Your task to perform on an android device: Empty the shopping cart on amazon.com. Search for "alienware aurora" on amazon.com, select the first entry, add it to the cart, then select checkout. Image 0: 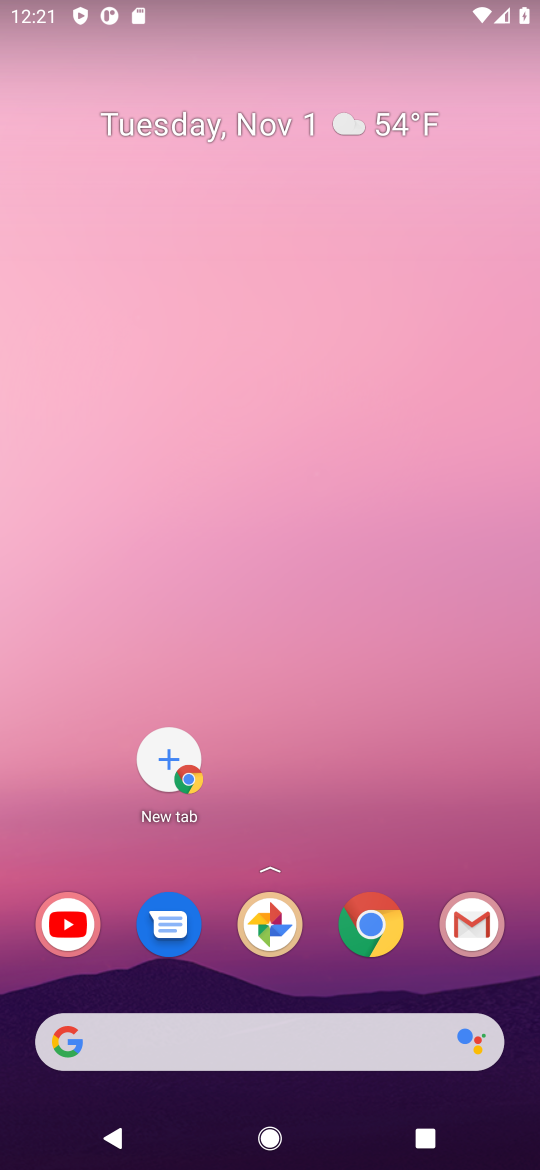
Step 0: click (363, 929)
Your task to perform on an android device: Empty the shopping cart on amazon.com. Search for "alienware aurora" on amazon.com, select the first entry, add it to the cart, then select checkout. Image 1: 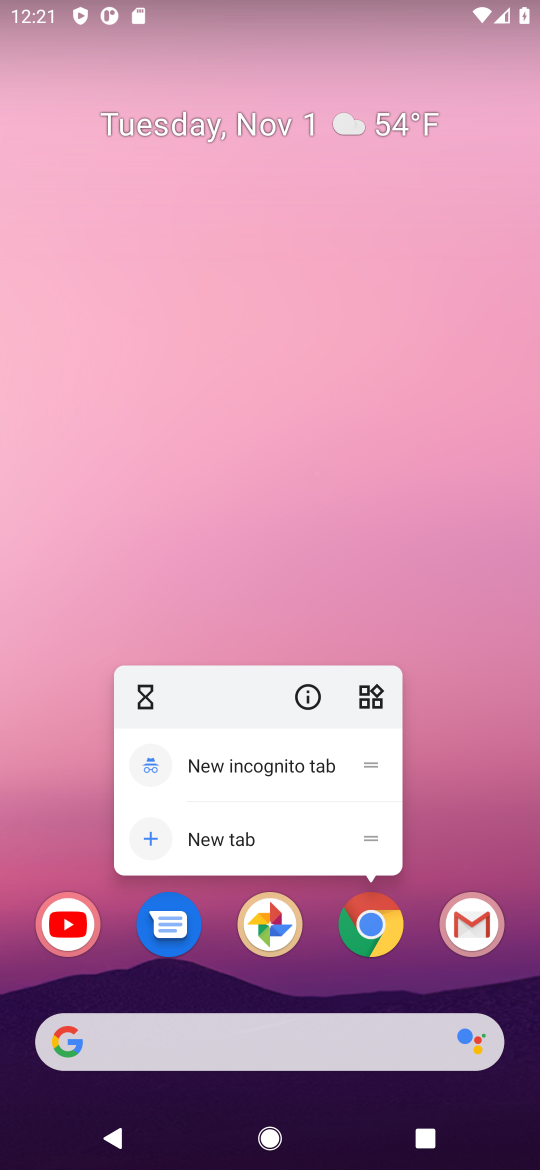
Step 1: click (361, 911)
Your task to perform on an android device: Empty the shopping cart on amazon.com. Search for "alienware aurora" on amazon.com, select the first entry, add it to the cart, then select checkout. Image 2: 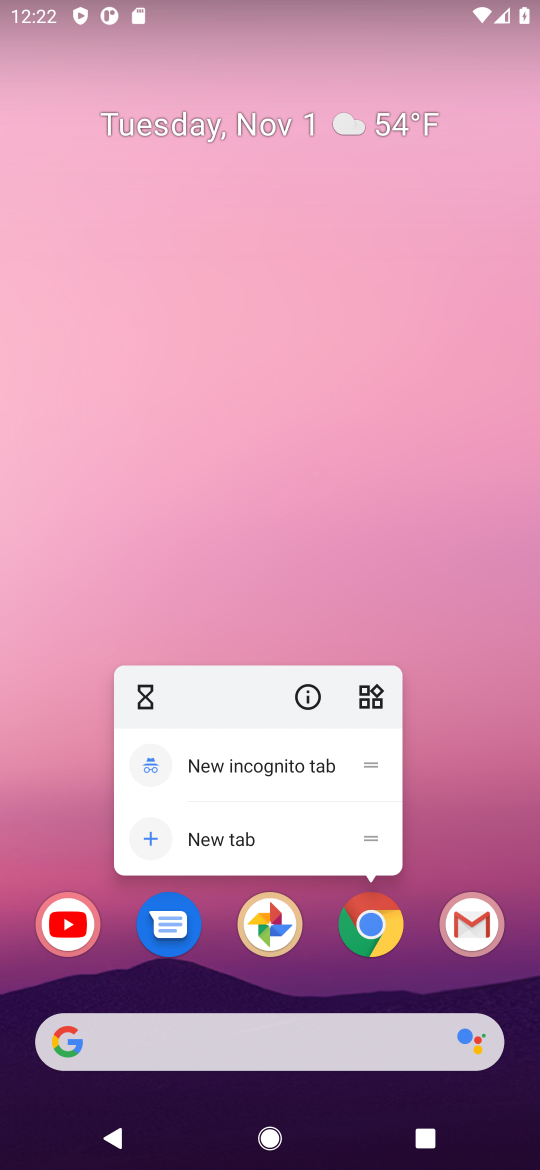
Step 2: click (373, 935)
Your task to perform on an android device: Empty the shopping cart on amazon.com. Search for "alienware aurora" on amazon.com, select the first entry, add it to the cart, then select checkout. Image 3: 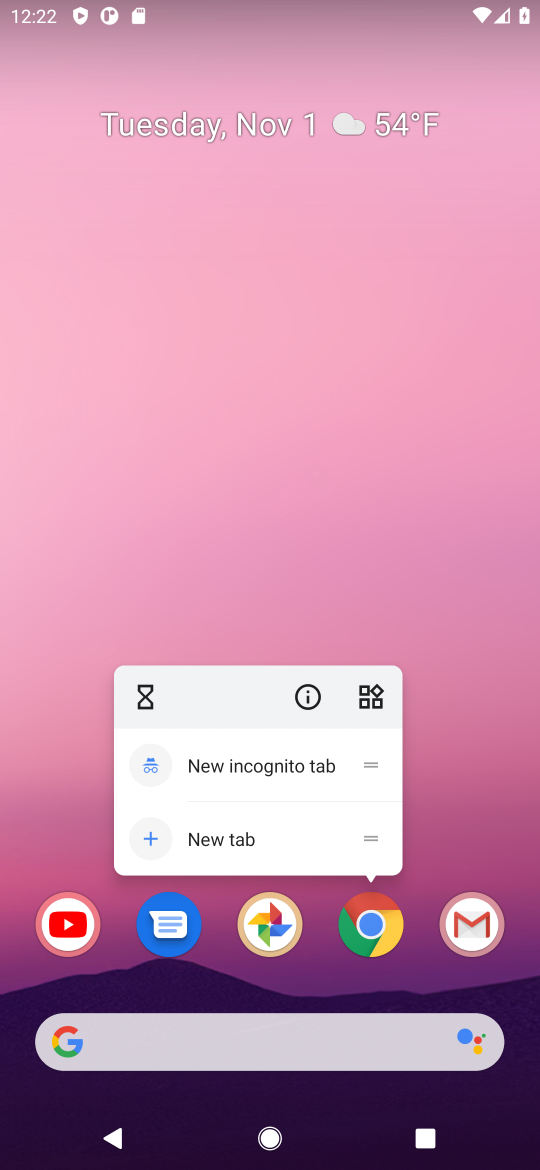
Step 3: click (370, 936)
Your task to perform on an android device: Empty the shopping cart on amazon.com. Search for "alienware aurora" on amazon.com, select the first entry, add it to the cart, then select checkout. Image 4: 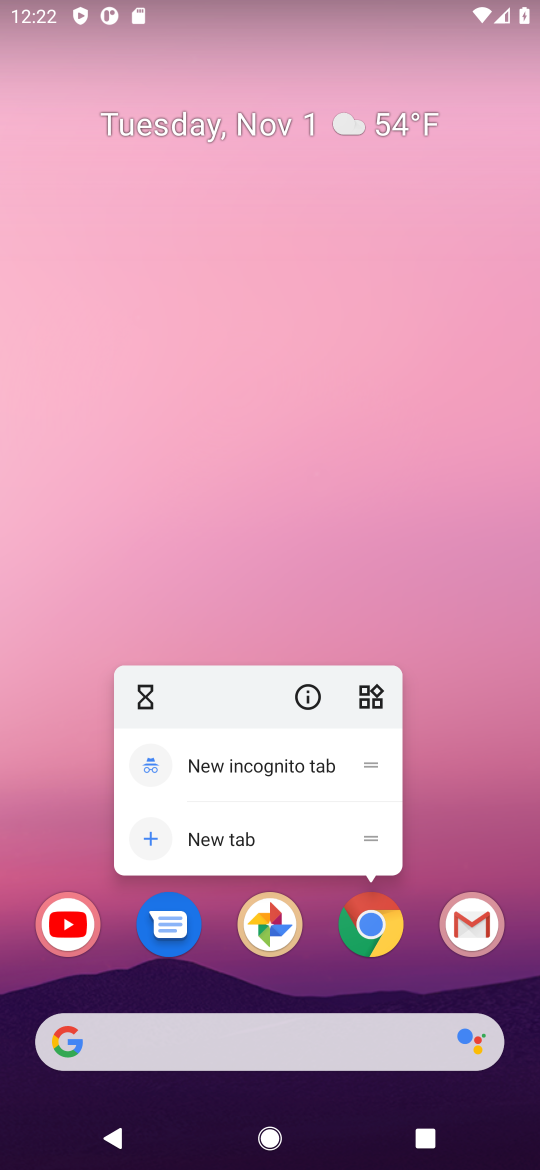
Step 4: click (386, 938)
Your task to perform on an android device: Empty the shopping cart on amazon.com. Search for "alienware aurora" on amazon.com, select the first entry, add it to the cart, then select checkout. Image 5: 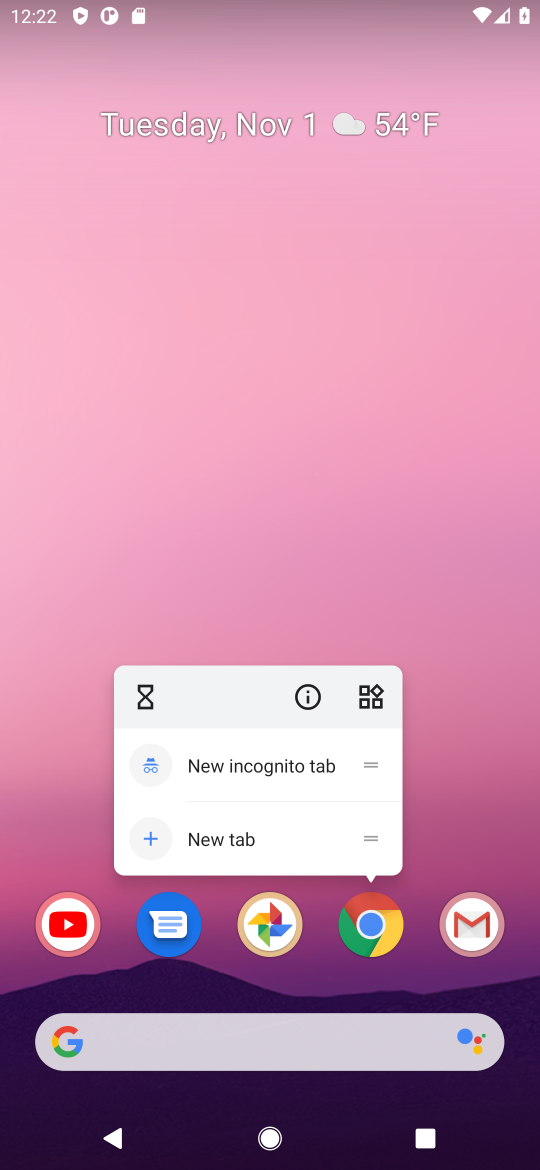
Step 5: press home button
Your task to perform on an android device: Empty the shopping cart on amazon.com. Search for "alienware aurora" on amazon.com, select the first entry, add it to the cart, then select checkout. Image 6: 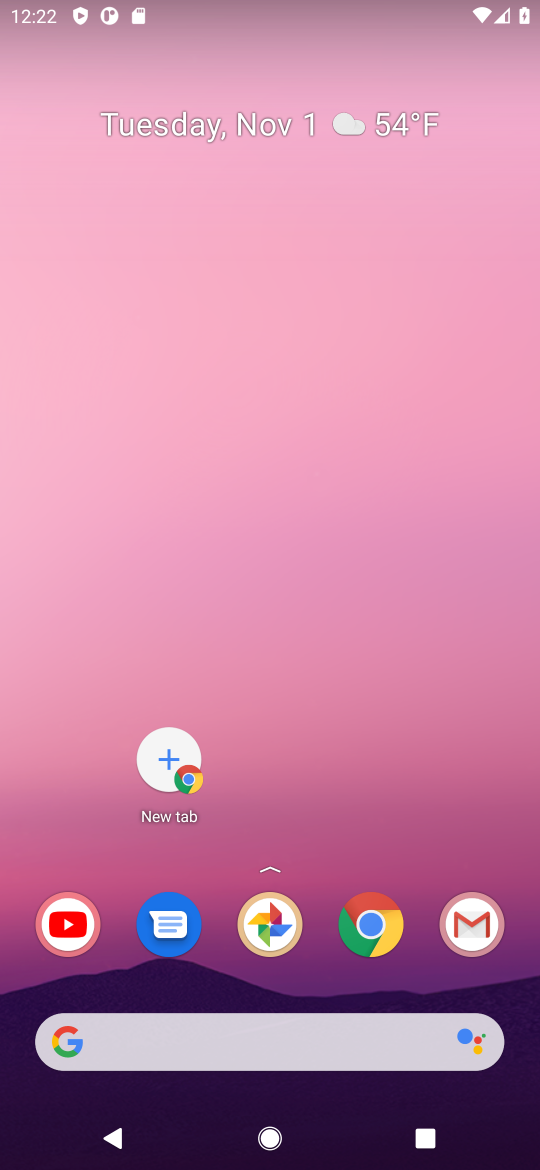
Step 6: click (368, 939)
Your task to perform on an android device: Empty the shopping cart on amazon.com. Search for "alienware aurora" on amazon.com, select the first entry, add it to the cart, then select checkout. Image 7: 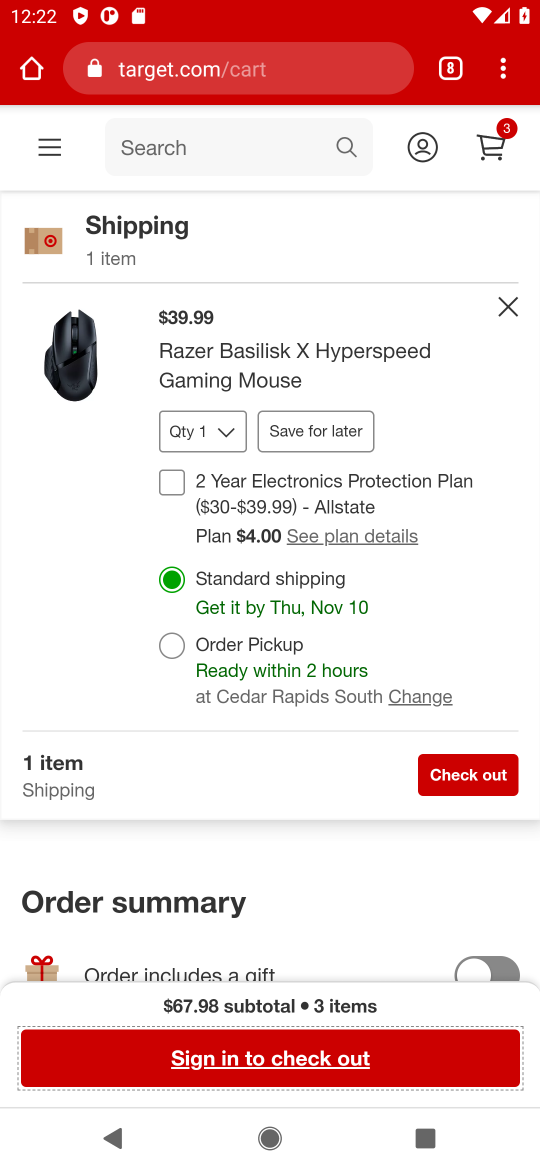
Step 7: click (162, 73)
Your task to perform on an android device: Empty the shopping cart on amazon.com. Search for "alienware aurora" on amazon.com, select the first entry, add it to the cart, then select checkout. Image 8: 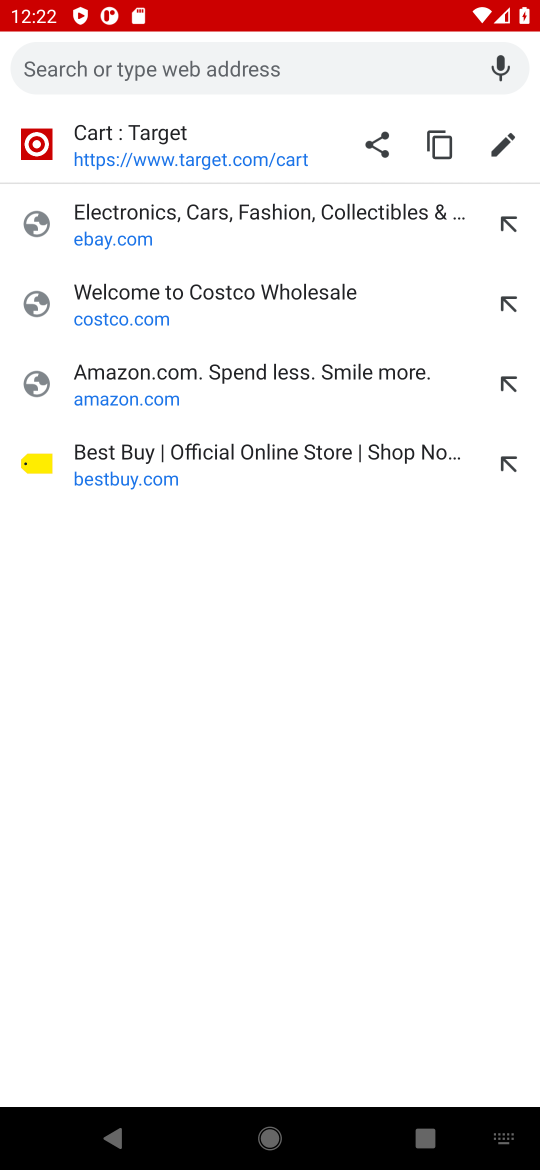
Step 8: type "amazon.com"
Your task to perform on an android device: Empty the shopping cart on amazon.com. Search for "alienware aurora" on amazon.com, select the first entry, add it to the cart, then select checkout. Image 9: 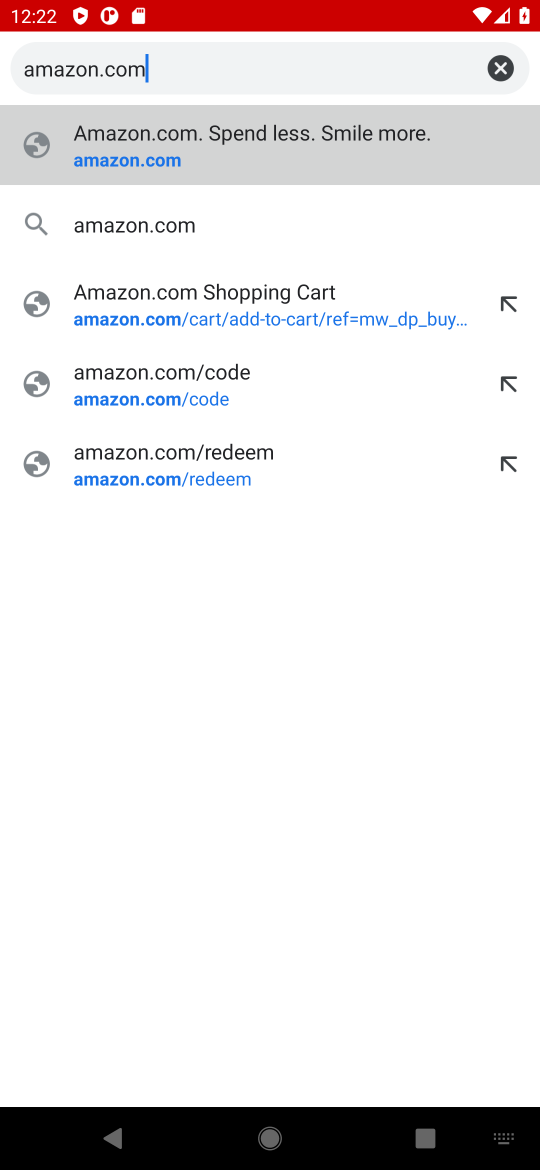
Step 9: click (125, 148)
Your task to perform on an android device: Empty the shopping cart on amazon.com. Search for "alienware aurora" on amazon.com, select the first entry, add it to the cart, then select checkout. Image 10: 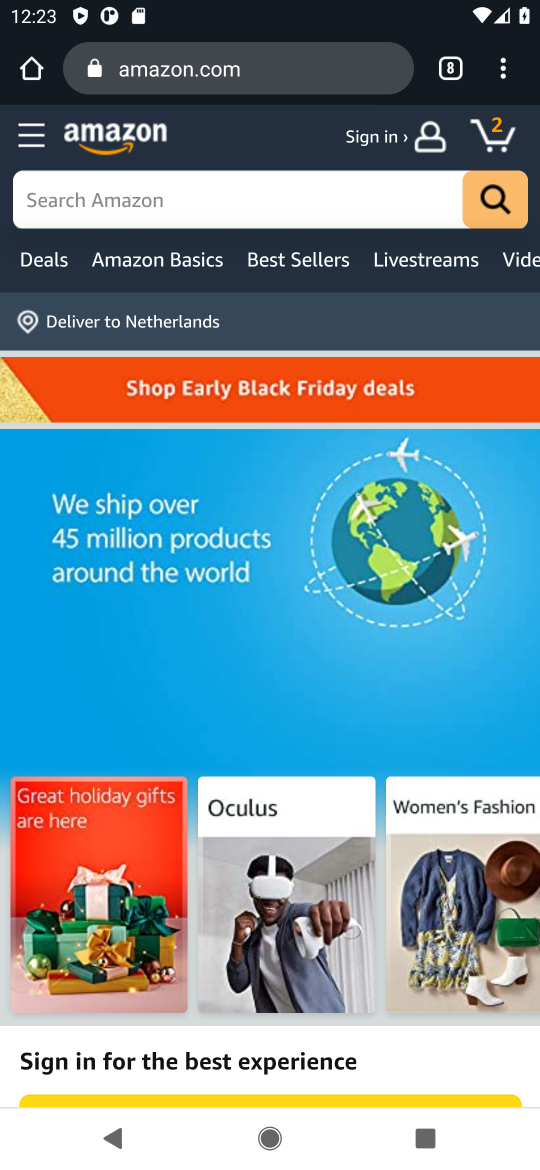
Step 10: click (288, 216)
Your task to perform on an android device: Empty the shopping cart on amazon.com. Search for "alienware aurora" on amazon.com, select the first entry, add it to the cart, then select checkout. Image 11: 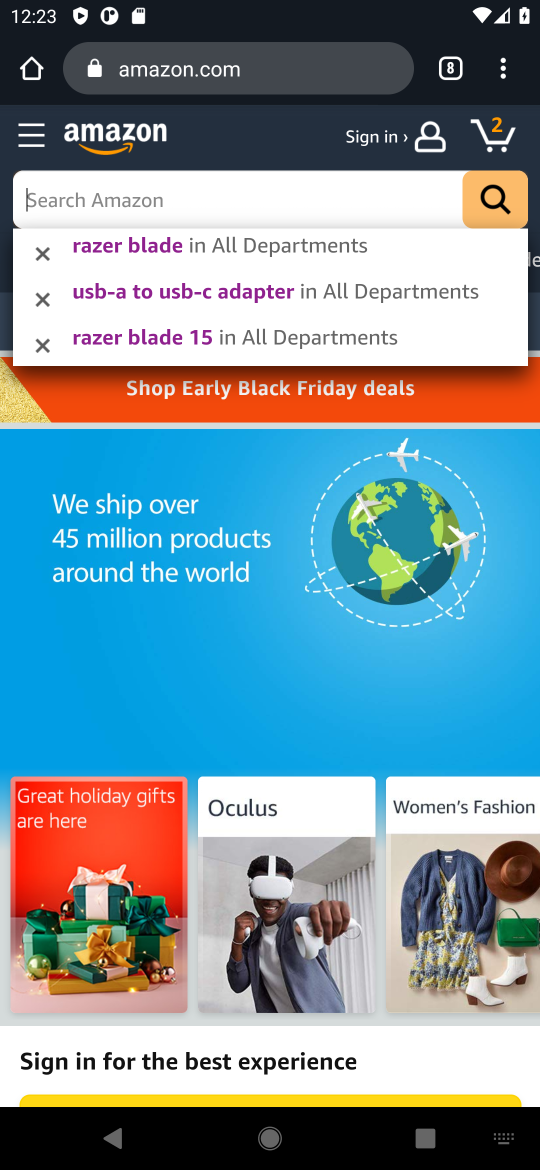
Step 11: type "alienware aurora"
Your task to perform on an android device: Empty the shopping cart on amazon.com. Search for "alienware aurora" on amazon.com, select the first entry, add it to the cart, then select checkout. Image 12: 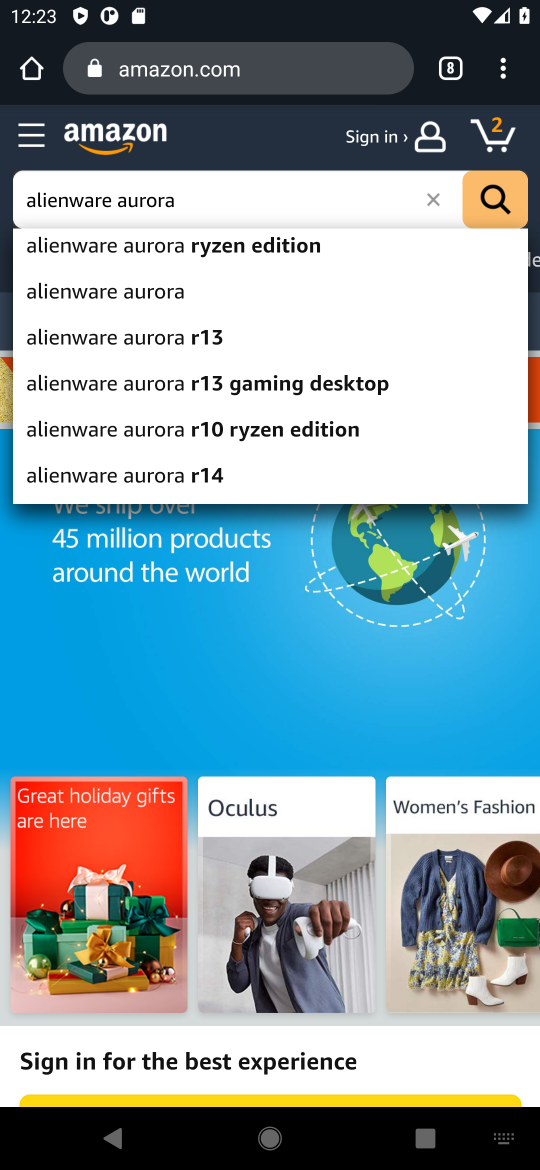
Step 12: click (114, 290)
Your task to perform on an android device: Empty the shopping cart on amazon.com. Search for "alienware aurora" on amazon.com, select the first entry, add it to the cart, then select checkout. Image 13: 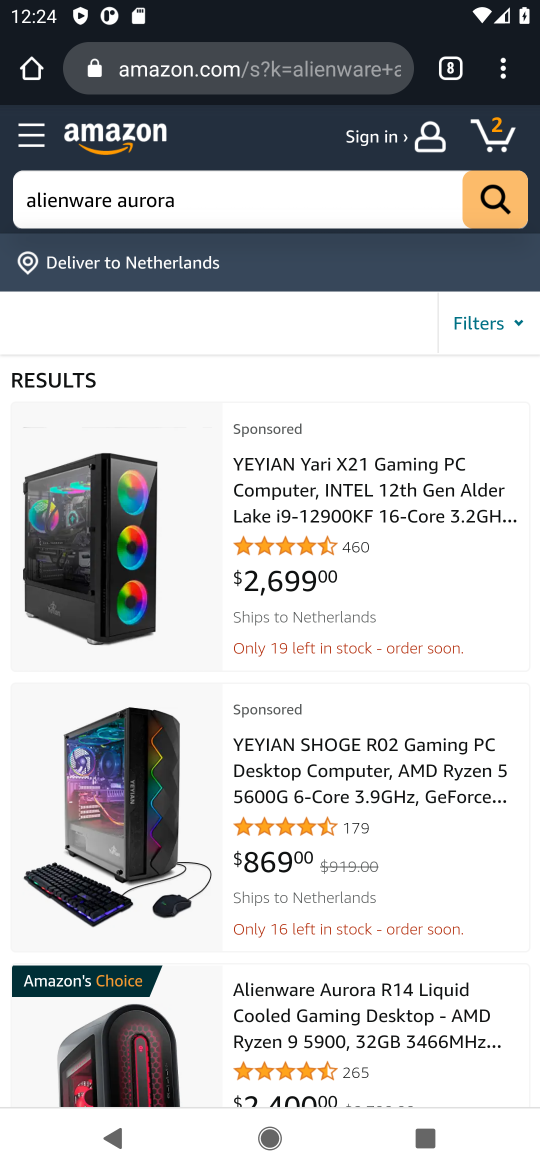
Step 13: click (168, 1076)
Your task to perform on an android device: Empty the shopping cart on amazon.com. Search for "alienware aurora" on amazon.com, select the first entry, add it to the cart, then select checkout. Image 14: 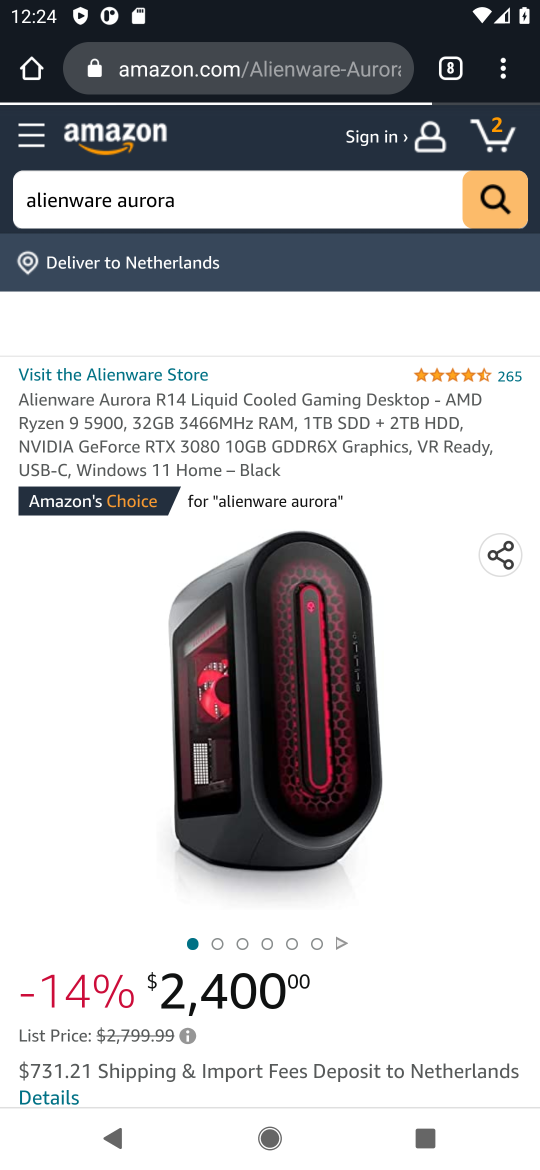
Step 14: drag from (412, 747) to (441, 523)
Your task to perform on an android device: Empty the shopping cart on amazon.com. Search for "alienware aurora" on amazon.com, select the first entry, add it to the cart, then select checkout. Image 15: 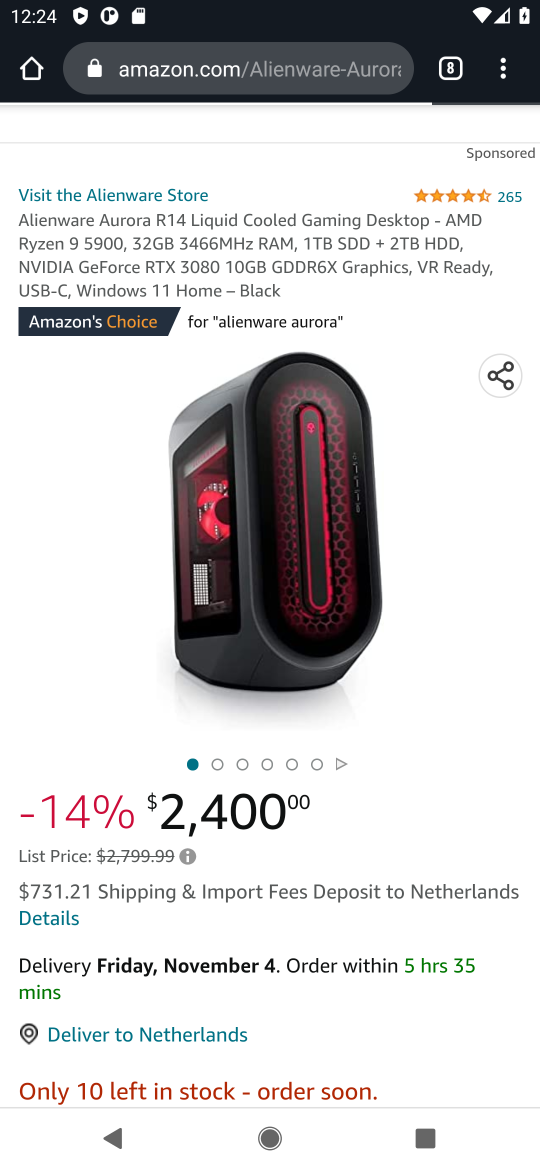
Step 15: drag from (351, 966) to (396, 510)
Your task to perform on an android device: Empty the shopping cart on amazon.com. Search for "alienware aurora" on amazon.com, select the first entry, add it to the cart, then select checkout. Image 16: 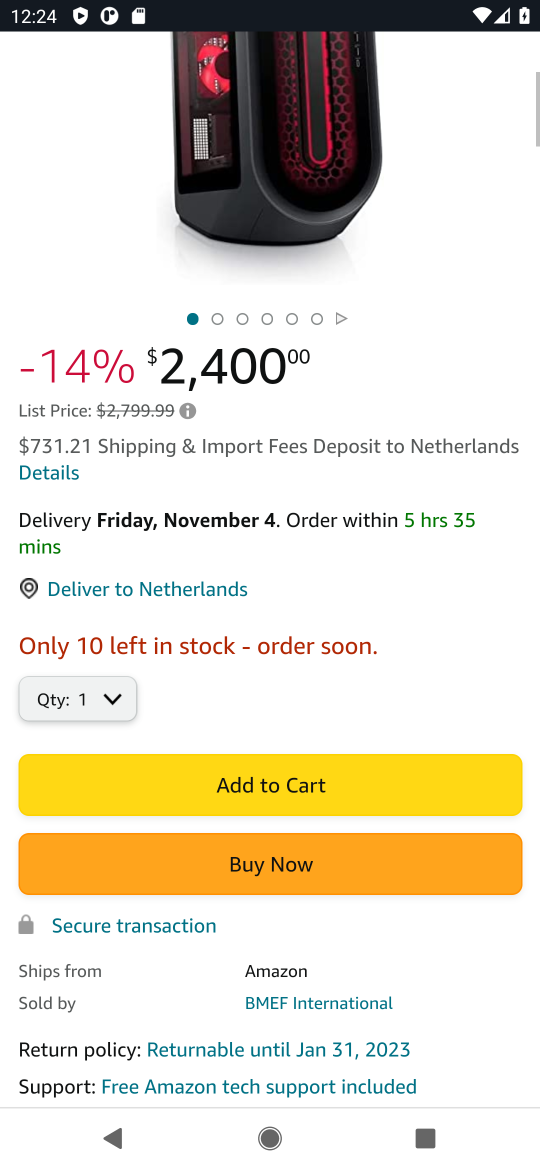
Step 16: drag from (320, 771) to (331, 515)
Your task to perform on an android device: Empty the shopping cart on amazon.com. Search for "alienware aurora" on amazon.com, select the first entry, add it to the cart, then select checkout. Image 17: 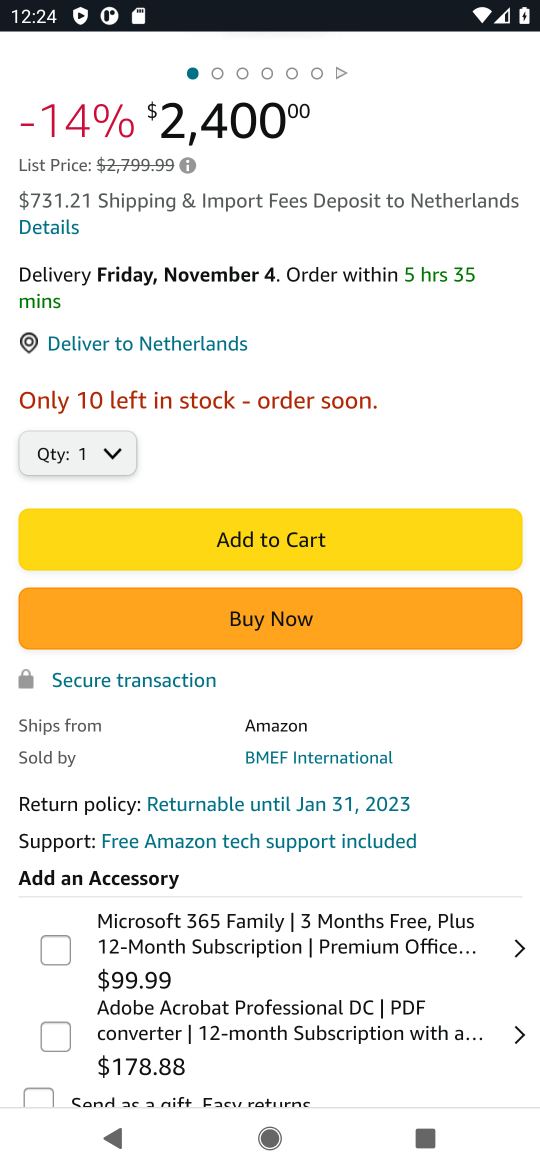
Step 17: click (298, 542)
Your task to perform on an android device: Empty the shopping cart on amazon.com. Search for "alienware aurora" on amazon.com, select the first entry, add it to the cart, then select checkout. Image 18: 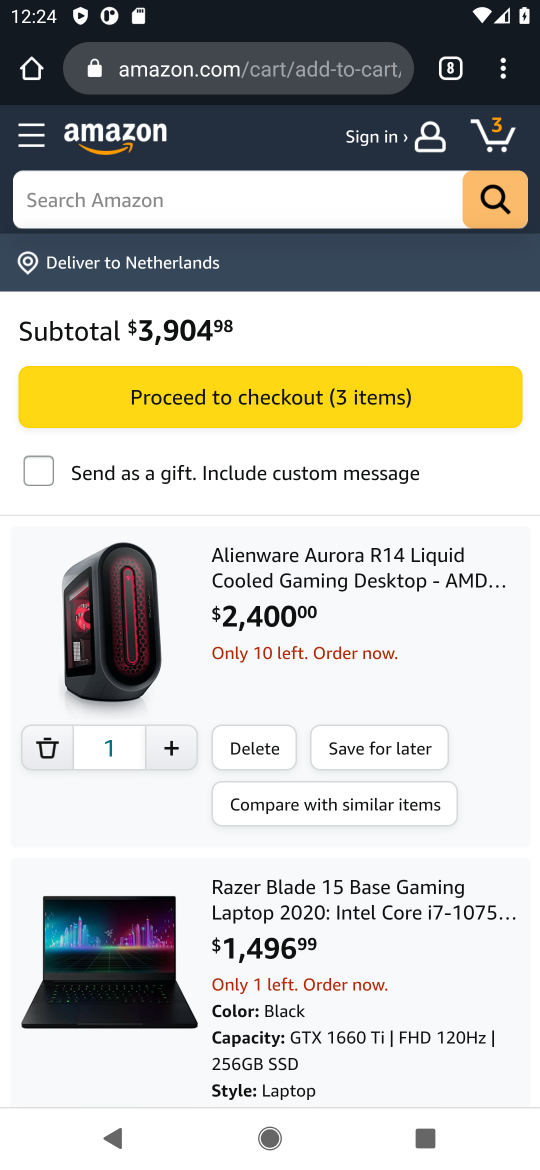
Step 18: click (256, 410)
Your task to perform on an android device: Empty the shopping cart on amazon.com. Search for "alienware aurora" on amazon.com, select the first entry, add it to the cart, then select checkout. Image 19: 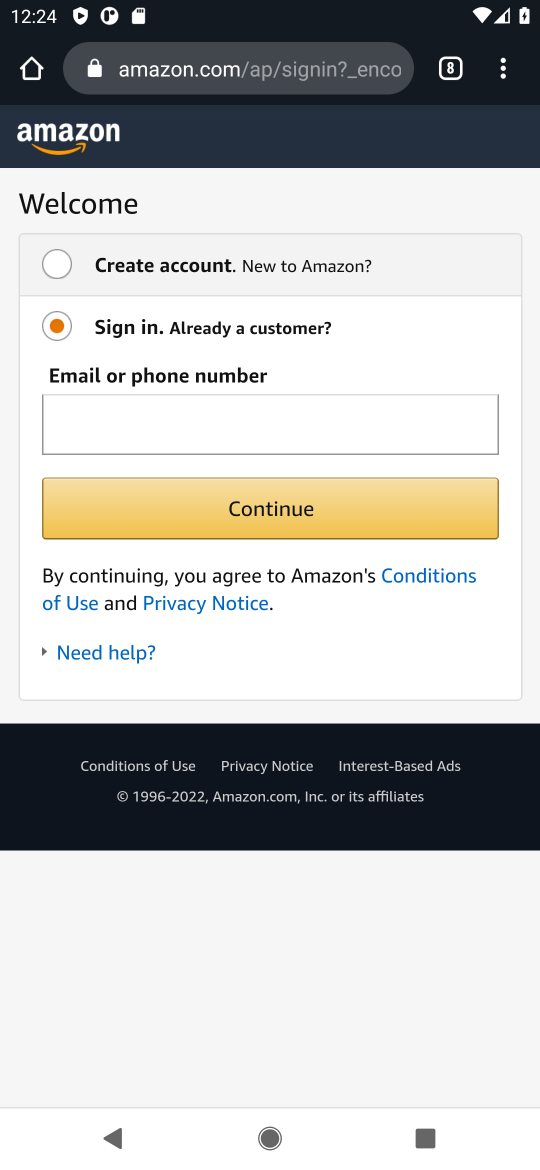
Step 19: task complete